Your task to perform on an android device: Open Chrome and go to settings Image 0: 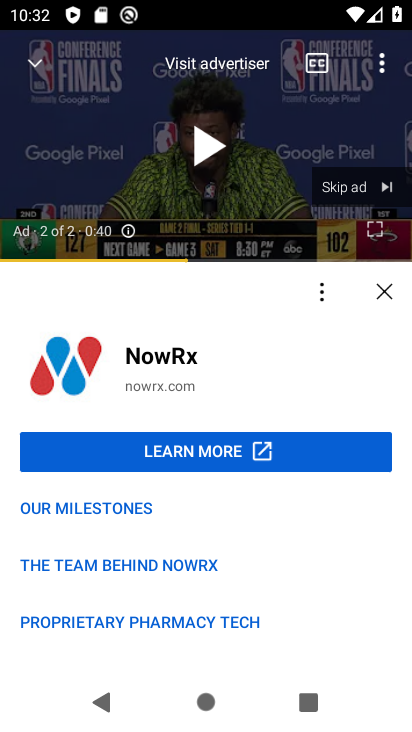
Step 0: press home button
Your task to perform on an android device: Open Chrome and go to settings Image 1: 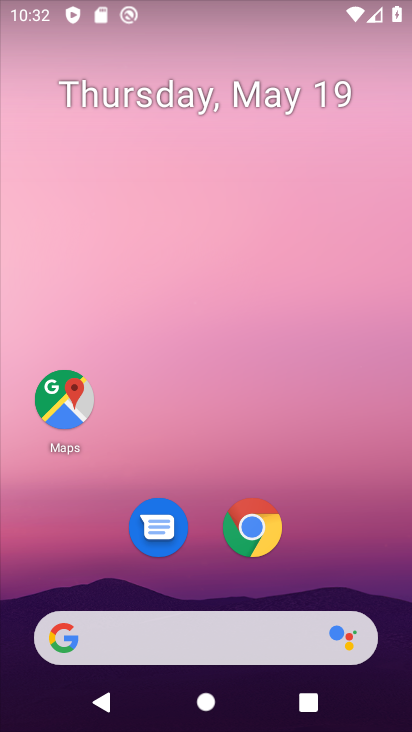
Step 1: click (273, 517)
Your task to perform on an android device: Open Chrome and go to settings Image 2: 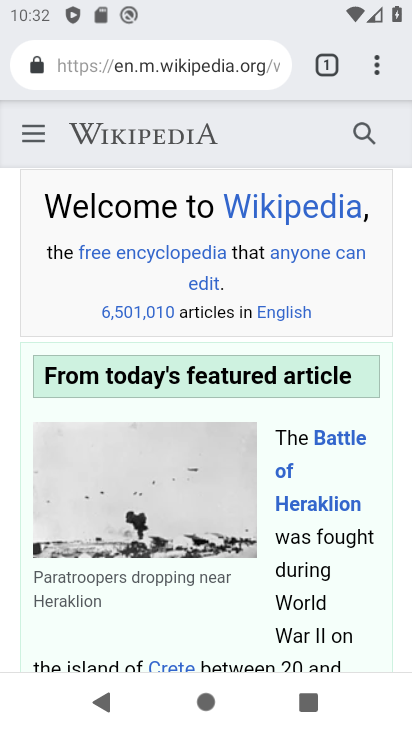
Step 2: click (376, 74)
Your task to perform on an android device: Open Chrome and go to settings Image 3: 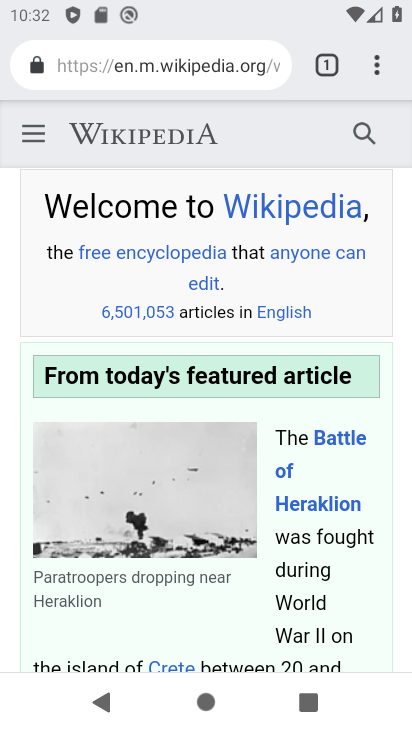
Step 3: click (370, 67)
Your task to perform on an android device: Open Chrome and go to settings Image 4: 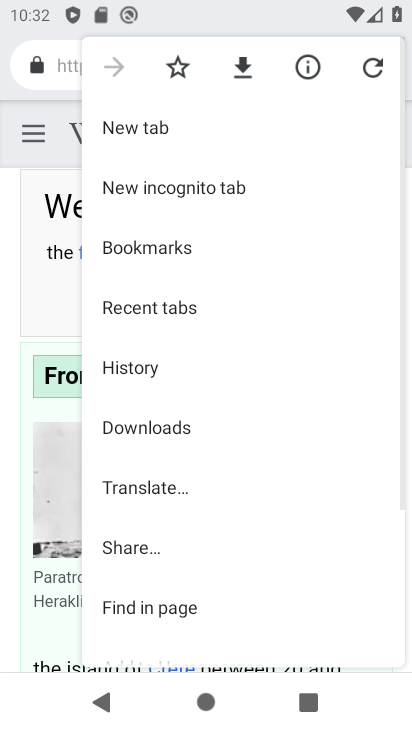
Step 4: drag from (170, 541) to (183, 303)
Your task to perform on an android device: Open Chrome and go to settings Image 5: 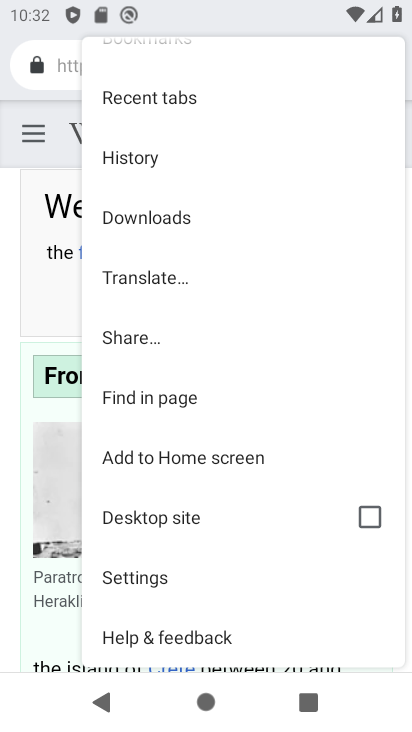
Step 5: click (158, 579)
Your task to perform on an android device: Open Chrome and go to settings Image 6: 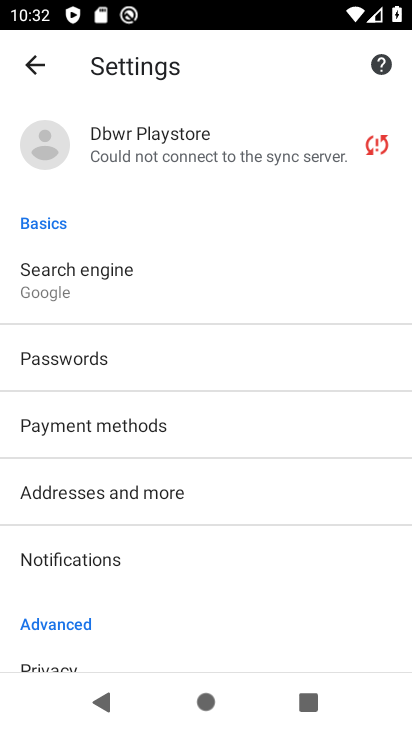
Step 6: task complete